Your task to perform on an android device: When is my next appointment? Image 0: 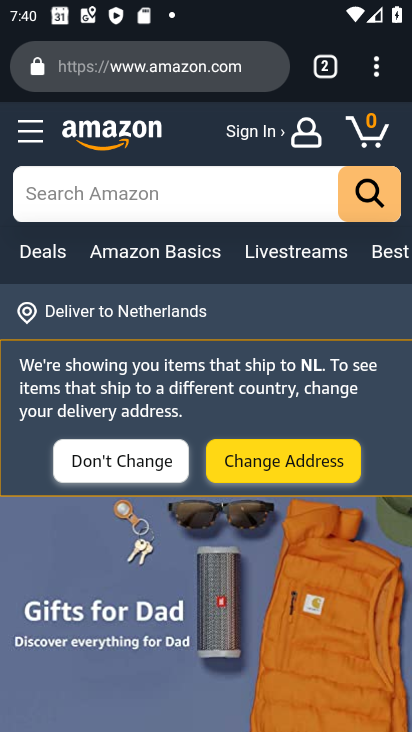
Step 0: press home button
Your task to perform on an android device: When is my next appointment? Image 1: 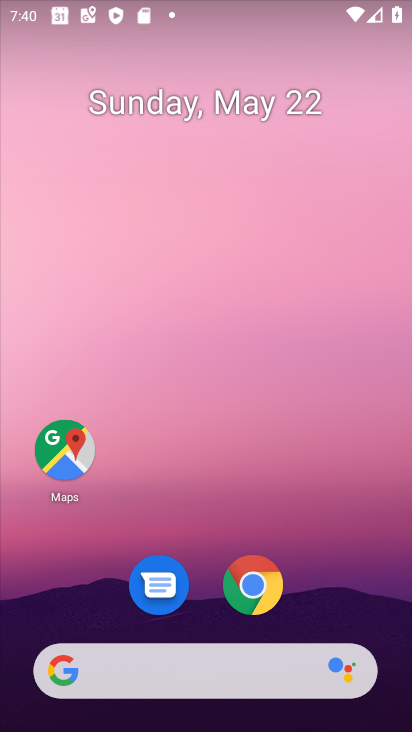
Step 1: drag from (257, 496) to (301, 34)
Your task to perform on an android device: When is my next appointment? Image 2: 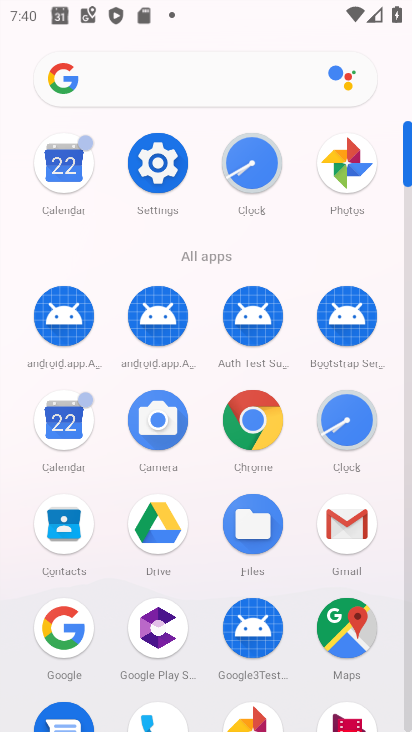
Step 2: click (59, 173)
Your task to perform on an android device: When is my next appointment? Image 3: 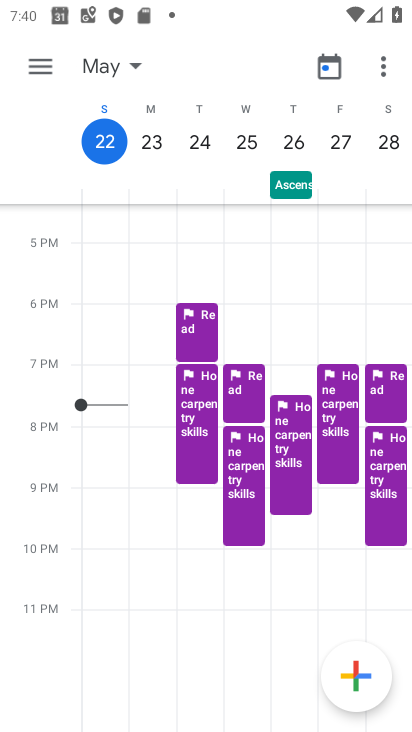
Step 3: click (104, 133)
Your task to perform on an android device: When is my next appointment? Image 4: 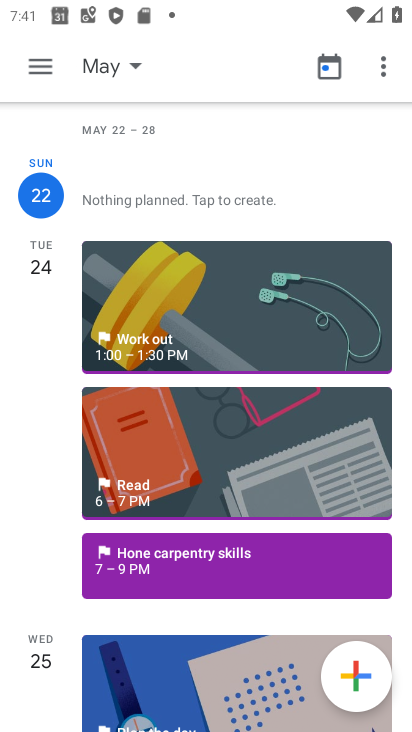
Step 4: task complete